Your task to perform on an android device: Go to eBay Image 0: 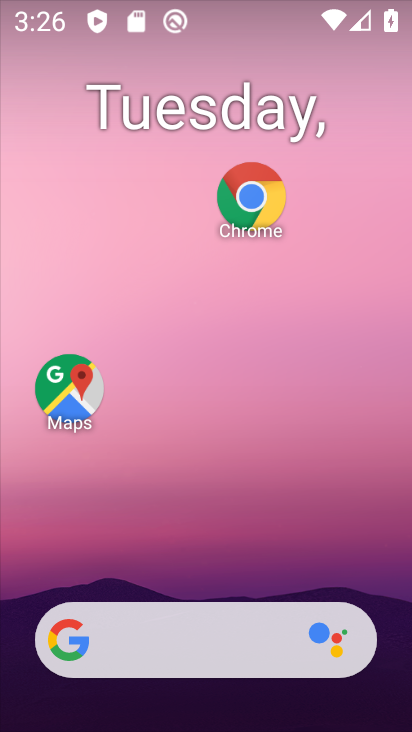
Step 0: click (247, 200)
Your task to perform on an android device: Go to eBay Image 1: 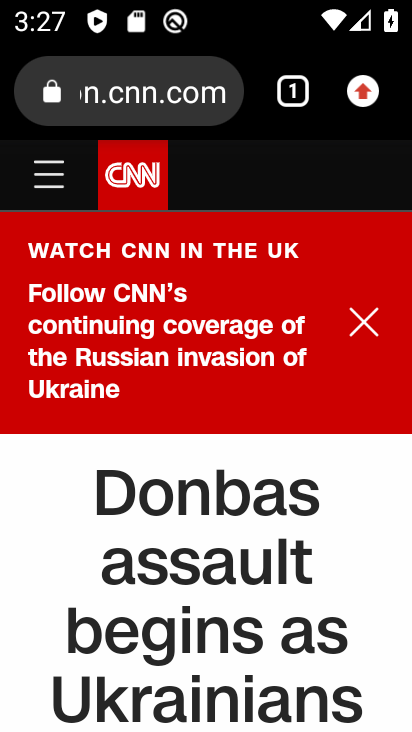
Step 1: click (377, 318)
Your task to perform on an android device: Go to eBay Image 2: 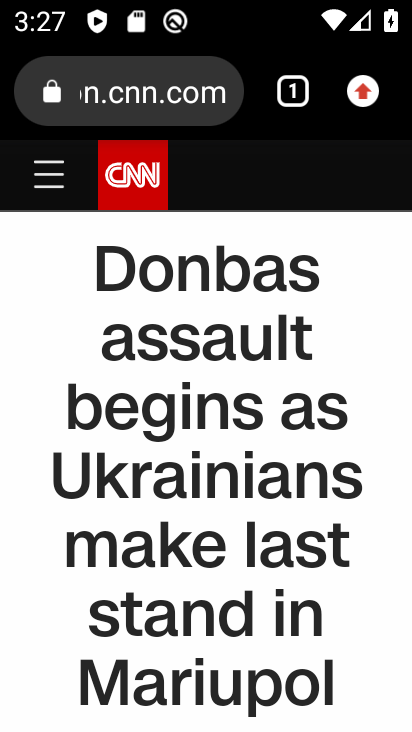
Step 2: click (300, 91)
Your task to perform on an android device: Go to eBay Image 3: 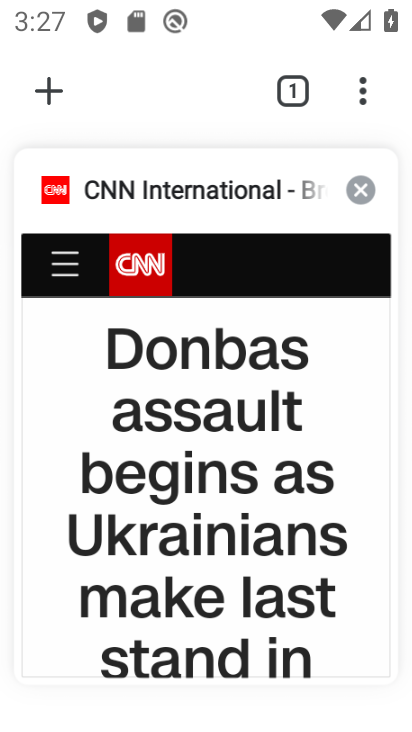
Step 3: click (52, 85)
Your task to perform on an android device: Go to eBay Image 4: 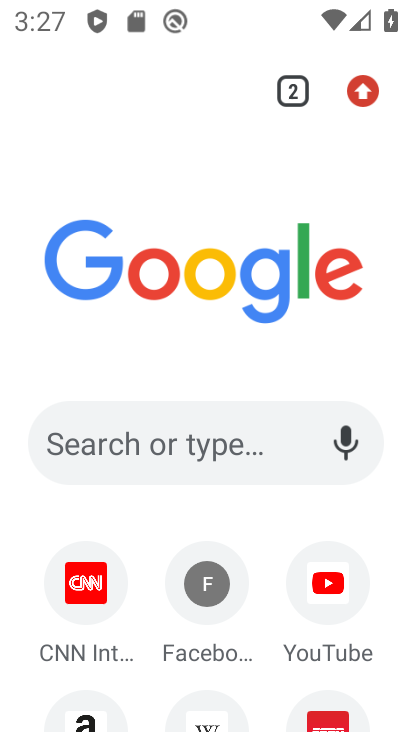
Step 4: drag from (240, 690) to (212, 347)
Your task to perform on an android device: Go to eBay Image 5: 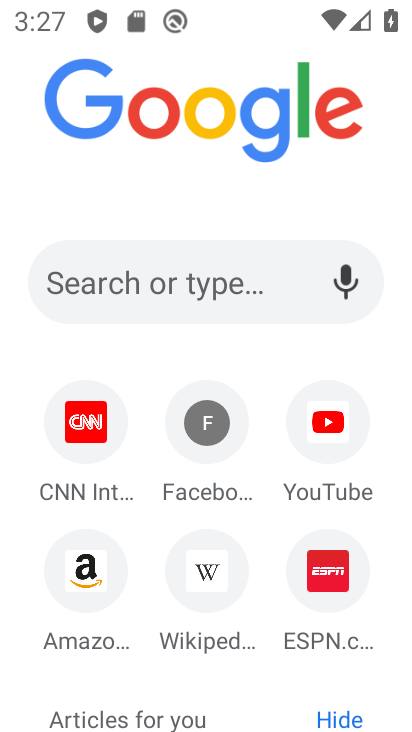
Step 5: drag from (248, 688) to (220, 391)
Your task to perform on an android device: Go to eBay Image 6: 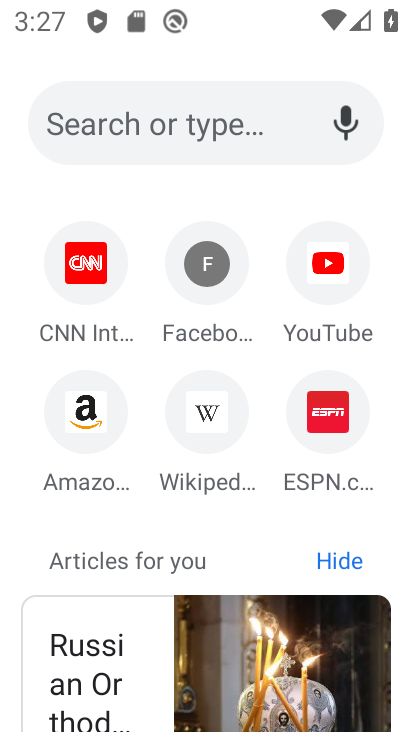
Step 6: click (213, 123)
Your task to perform on an android device: Go to eBay Image 7: 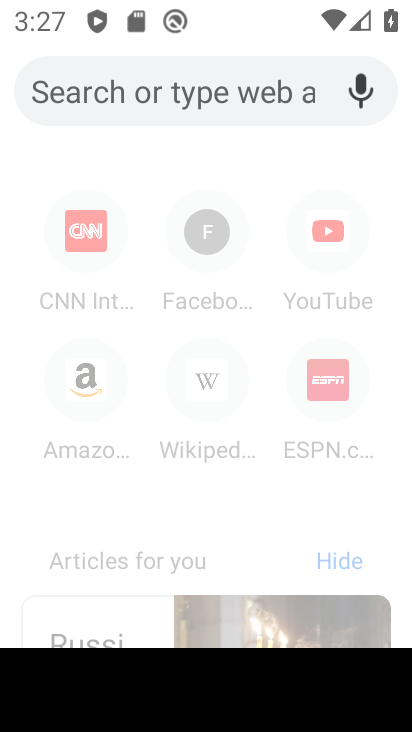
Step 7: type "ebay"
Your task to perform on an android device: Go to eBay Image 8: 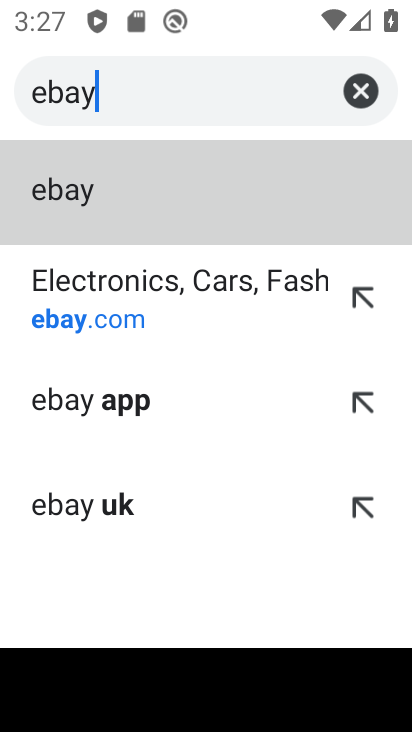
Step 8: click (120, 395)
Your task to perform on an android device: Go to eBay Image 9: 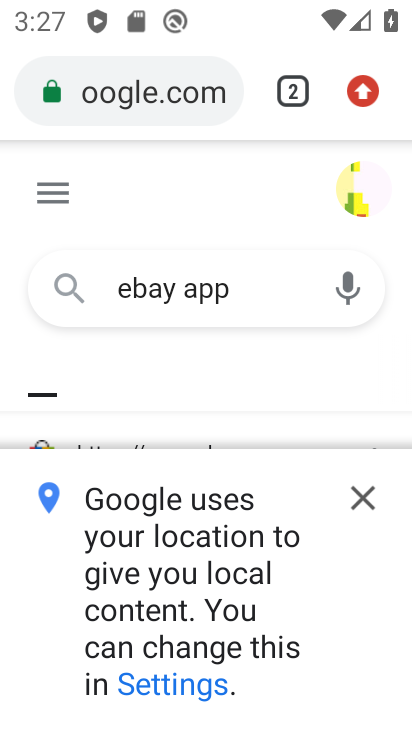
Step 9: click (356, 501)
Your task to perform on an android device: Go to eBay Image 10: 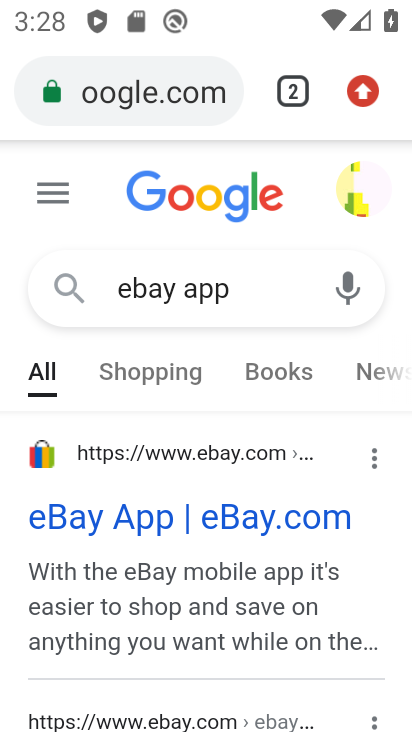
Step 10: drag from (259, 577) to (260, 417)
Your task to perform on an android device: Go to eBay Image 11: 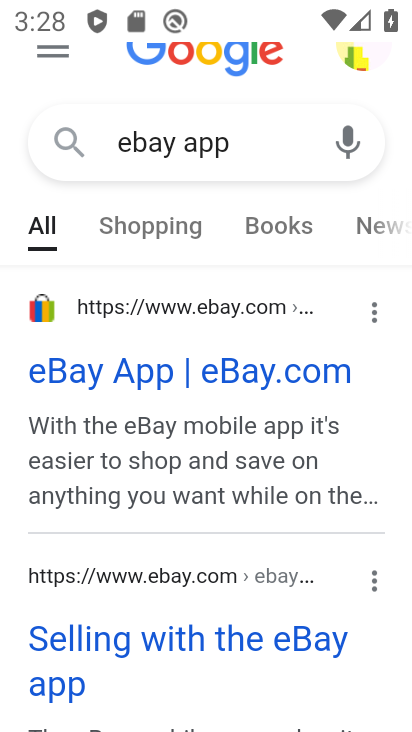
Step 11: drag from (208, 696) to (208, 507)
Your task to perform on an android device: Go to eBay Image 12: 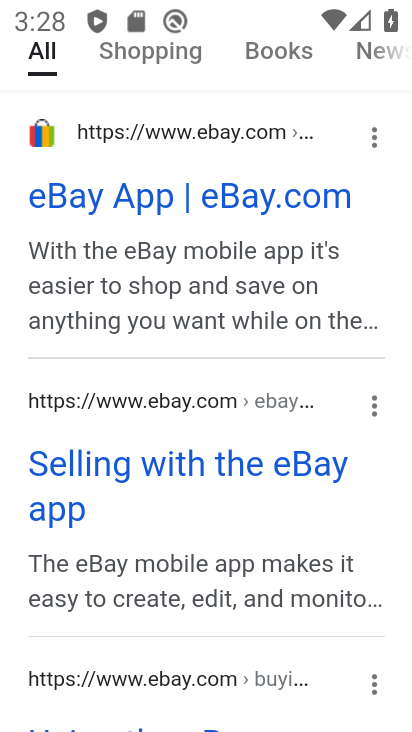
Step 12: drag from (207, 677) to (207, 418)
Your task to perform on an android device: Go to eBay Image 13: 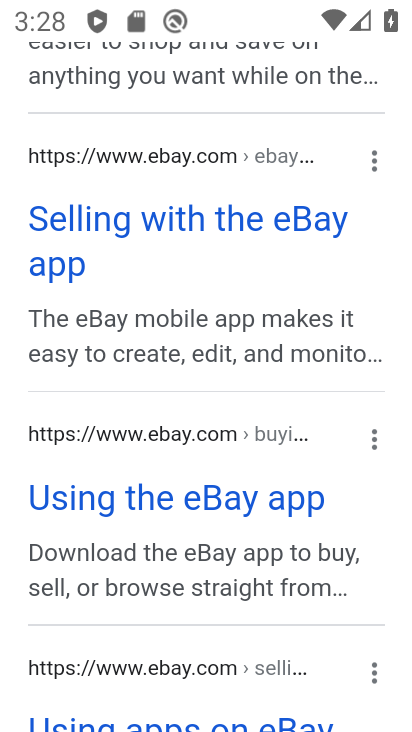
Step 13: click (174, 498)
Your task to perform on an android device: Go to eBay Image 14: 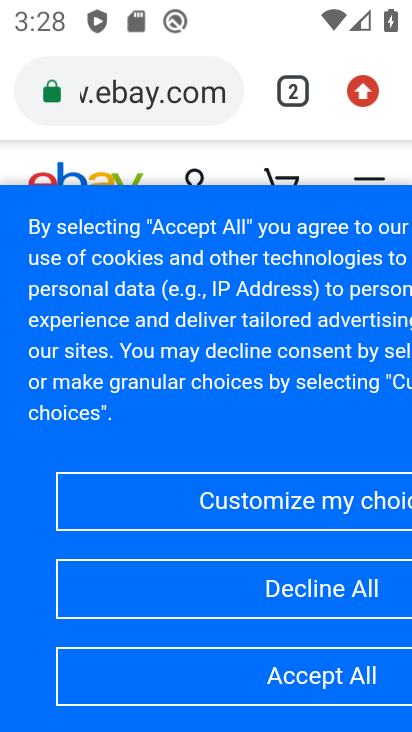
Step 14: task complete